Your task to perform on an android device: Search for pizza restaurants on Maps Image 0: 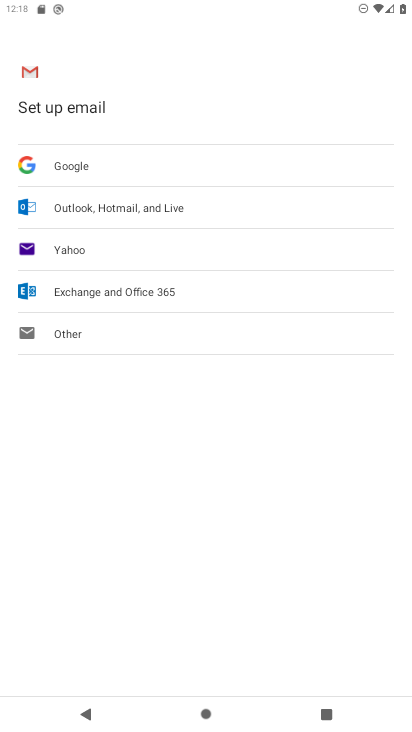
Step 0: press home button
Your task to perform on an android device: Search for pizza restaurants on Maps Image 1: 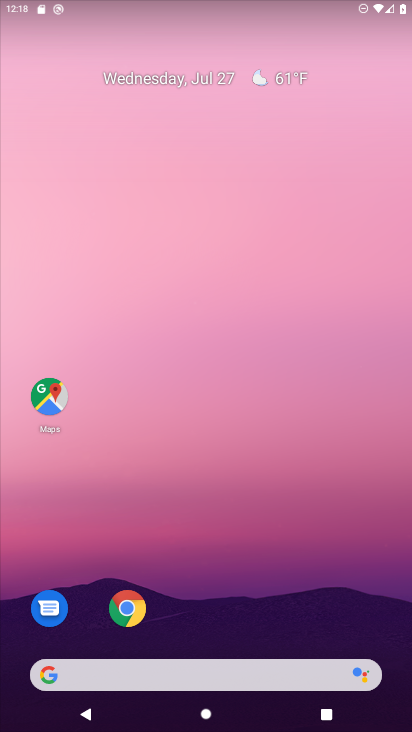
Step 1: drag from (337, 590) to (343, 199)
Your task to perform on an android device: Search for pizza restaurants on Maps Image 2: 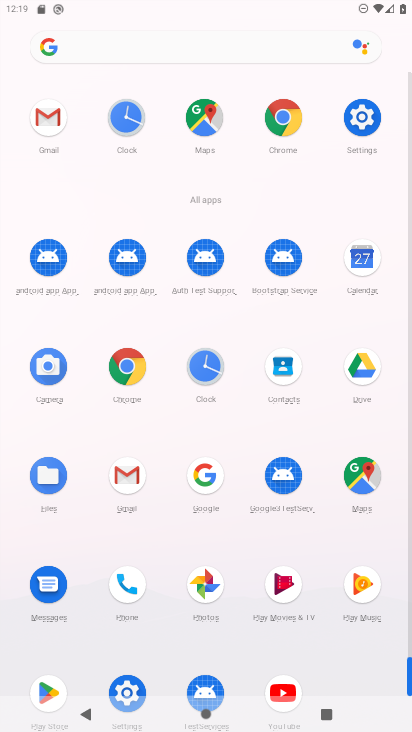
Step 2: click (355, 474)
Your task to perform on an android device: Search for pizza restaurants on Maps Image 3: 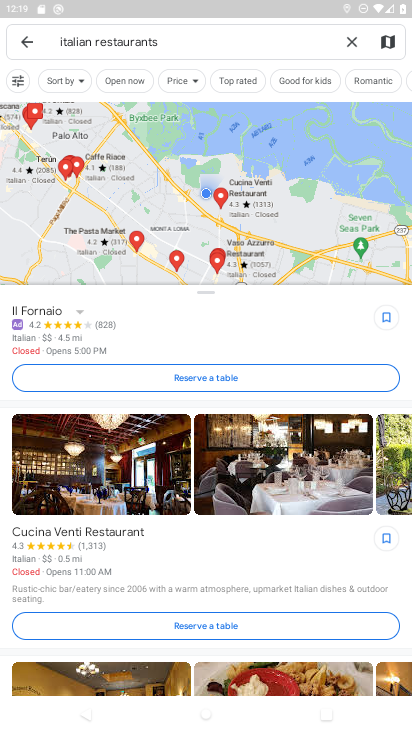
Step 3: press back button
Your task to perform on an android device: Search for pizza restaurants on Maps Image 4: 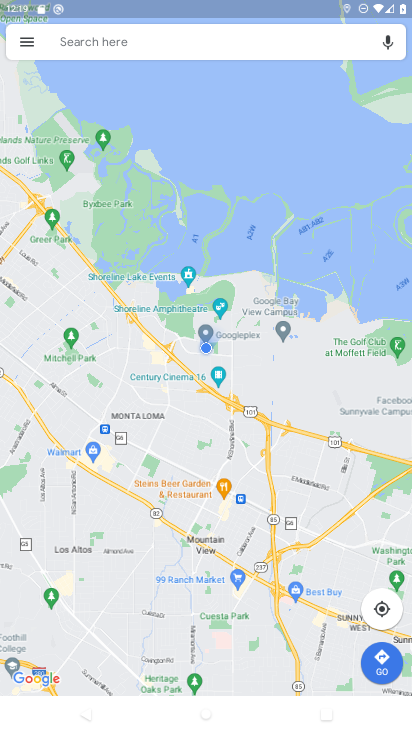
Step 4: click (297, 35)
Your task to perform on an android device: Search for pizza restaurants on Maps Image 5: 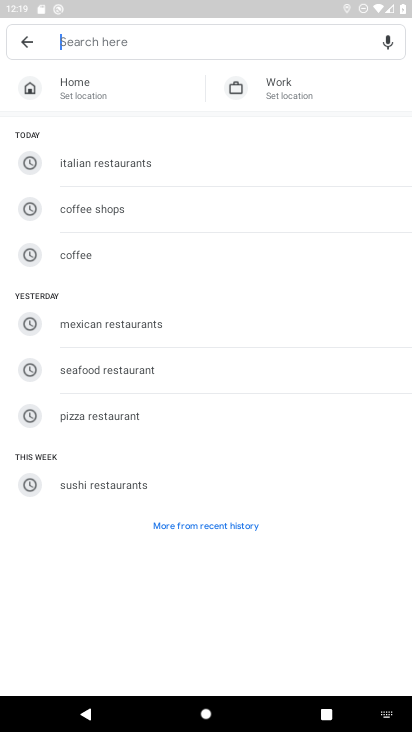
Step 5: type "pizza restaurants"
Your task to perform on an android device: Search for pizza restaurants on Maps Image 6: 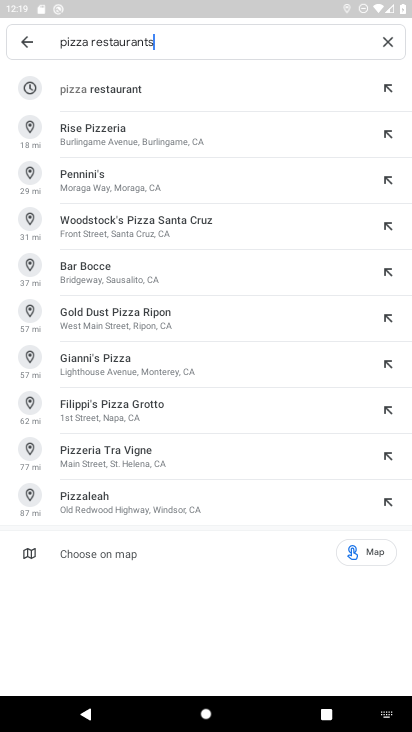
Step 6: click (290, 92)
Your task to perform on an android device: Search for pizza restaurants on Maps Image 7: 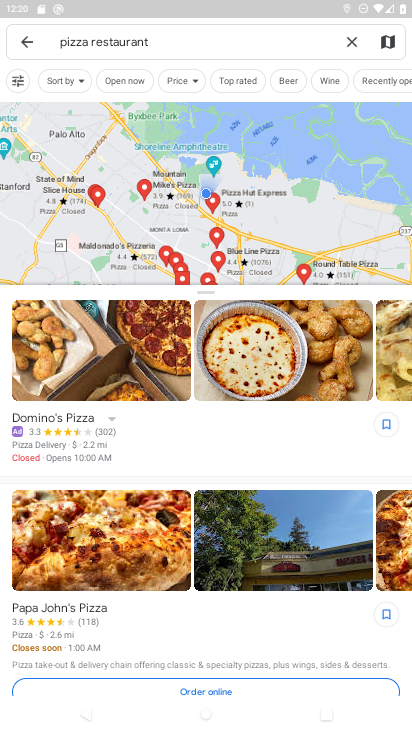
Step 7: task complete